Your task to perform on an android device: Is it going to rain this weekend? Image 0: 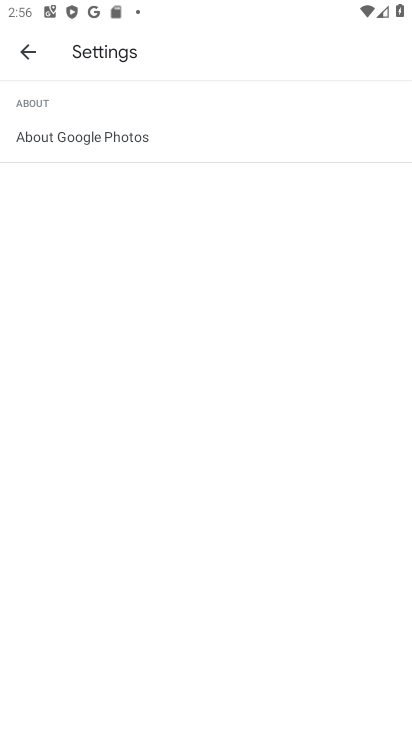
Step 0: press home button
Your task to perform on an android device: Is it going to rain this weekend? Image 1: 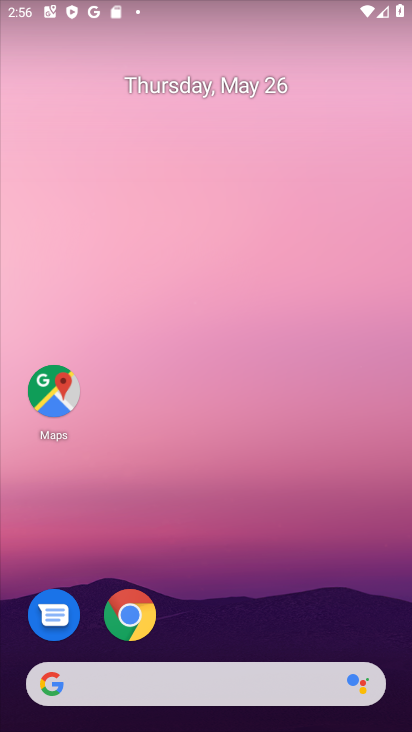
Step 1: drag from (233, 605) to (159, 18)
Your task to perform on an android device: Is it going to rain this weekend? Image 2: 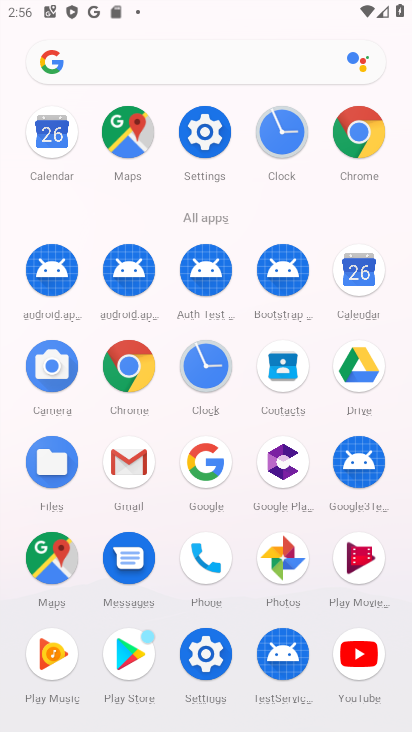
Step 2: click (199, 453)
Your task to perform on an android device: Is it going to rain this weekend? Image 3: 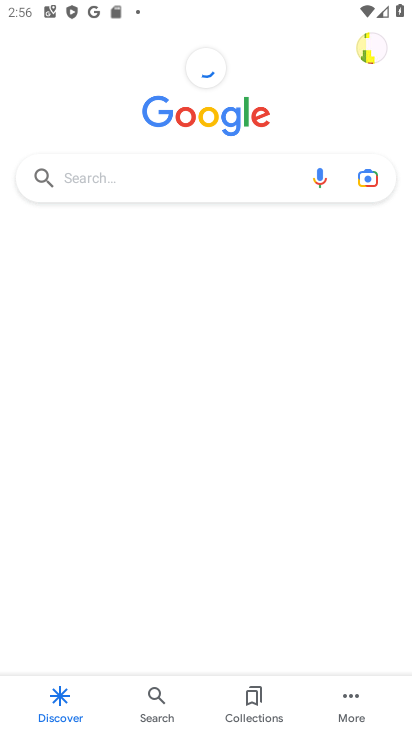
Step 3: click (144, 187)
Your task to perform on an android device: Is it going to rain this weekend? Image 4: 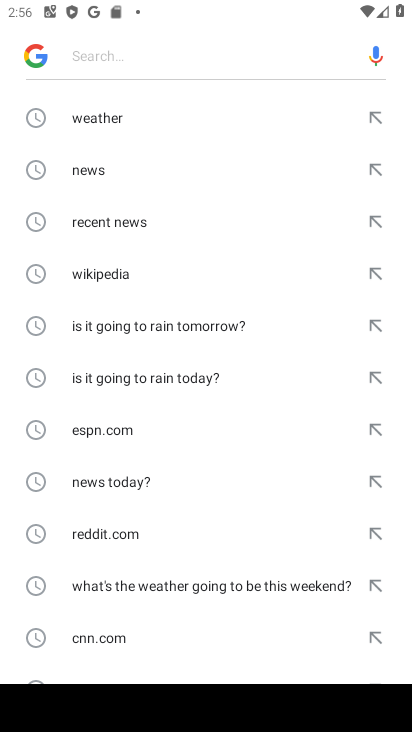
Step 4: click (96, 109)
Your task to perform on an android device: Is it going to rain this weekend? Image 5: 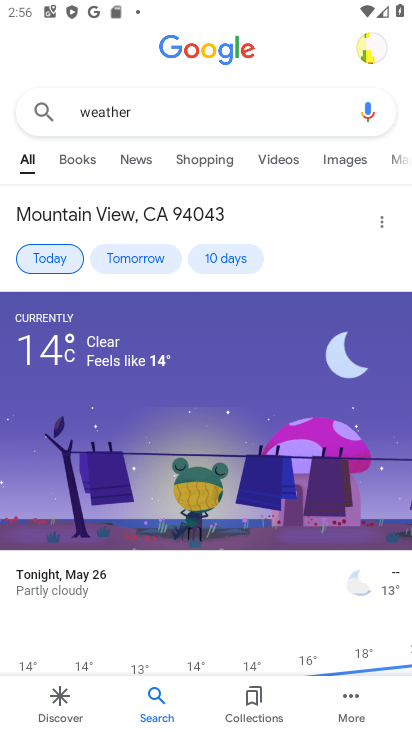
Step 5: click (248, 259)
Your task to perform on an android device: Is it going to rain this weekend? Image 6: 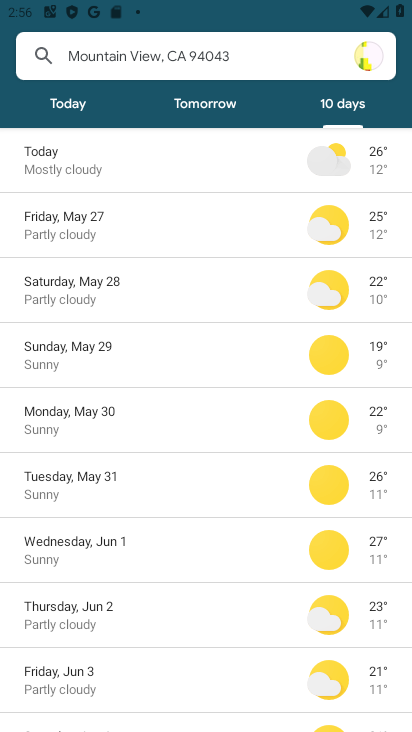
Step 6: task complete